Your task to perform on an android device: turn off picture-in-picture Image 0: 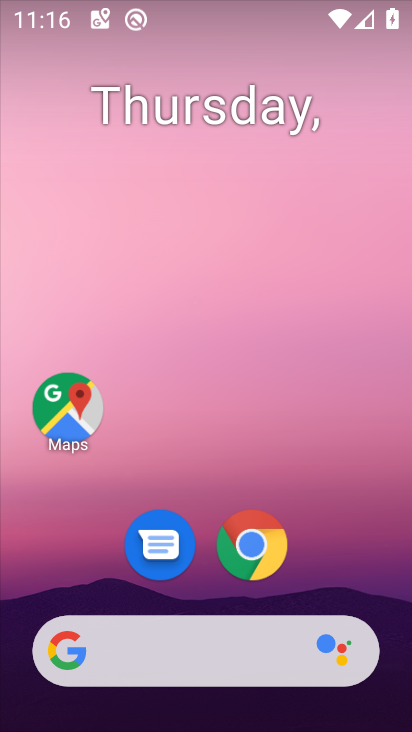
Step 0: drag from (327, 580) to (264, 211)
Your task to perform on an android device: turn off picture-in-picture Image 1: 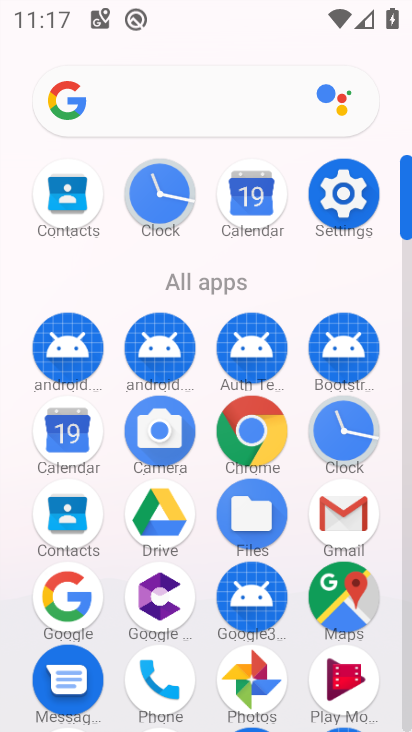
Step 1: click (346, 190)
Your task to perform on an android device: turn off picture-in-picture Image 2: 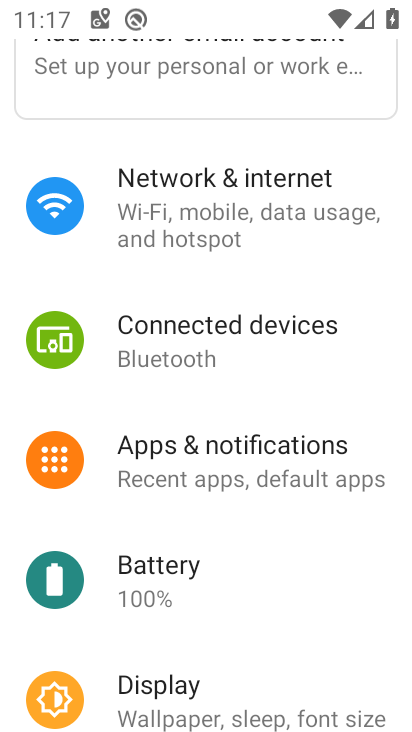
Step 2: click (199, 482)
Your task to perform on an android device: turn off picture-in-picture Image 3: 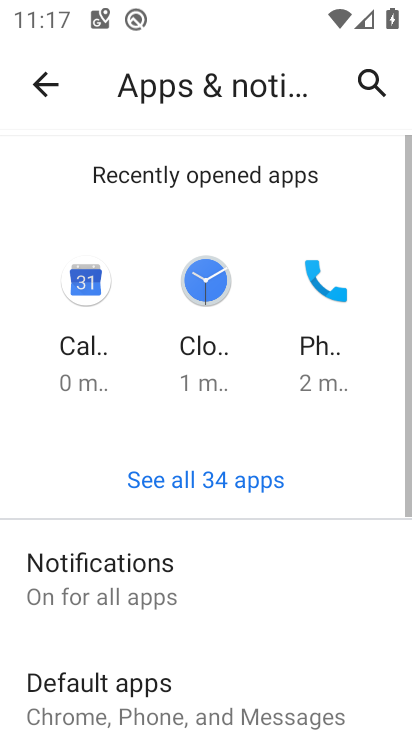
Step 3: drag from (209, 649) to (170, 339)
Your task to perform on an android device: turn off picture-in-picture Image 4: 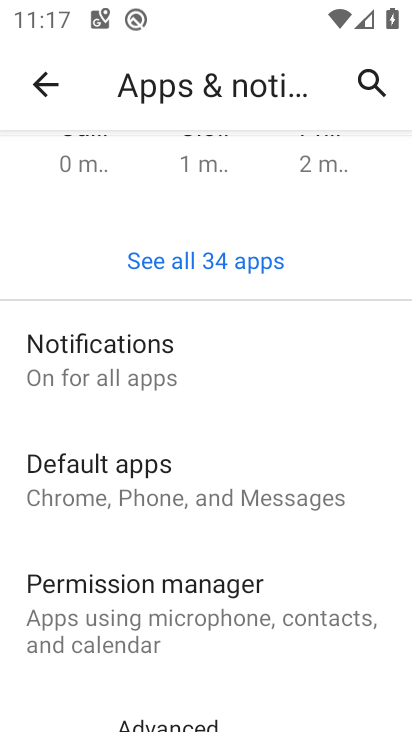
Step 4: drag from (145, 658) to (140, 423)
Your task to perform on an android device: turn off picture-in-picture Image 5: 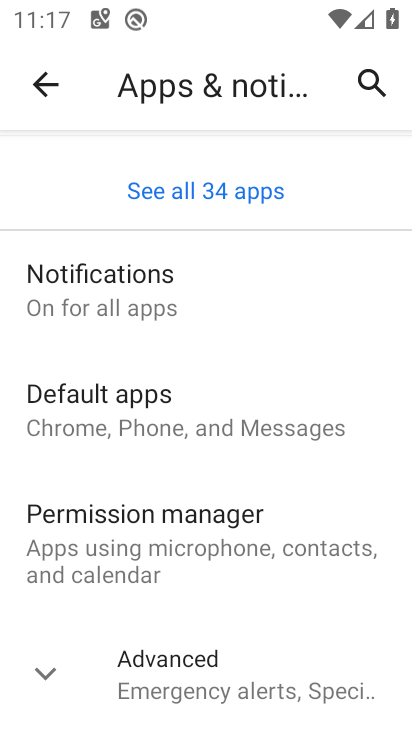
Step 5: click (190, 688)
Your task to perform on an android device: turn off picture-in-picture Image 6: 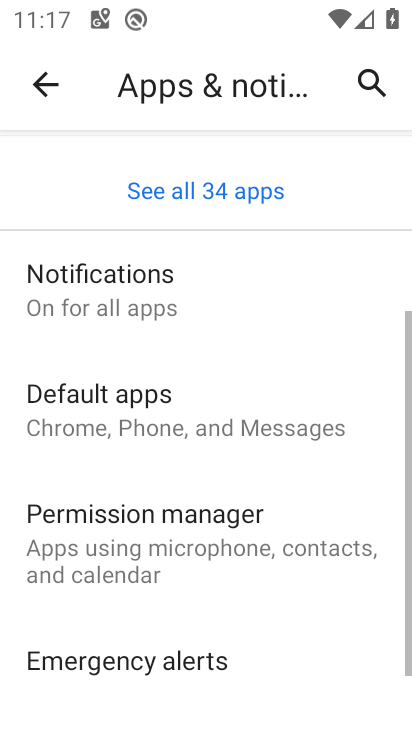
Step 6: drag from (190, 688) to (222, 330)
Your task to perform on an android device: turn off picture-in-picture Image 7: 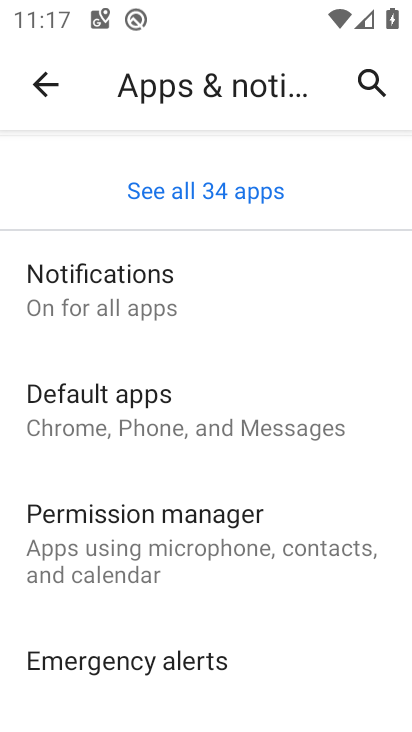
Step 7: drag from (137, 605) to (165, 321)
Your task to perform on an android device: turn off picture-in-picture Image 8: 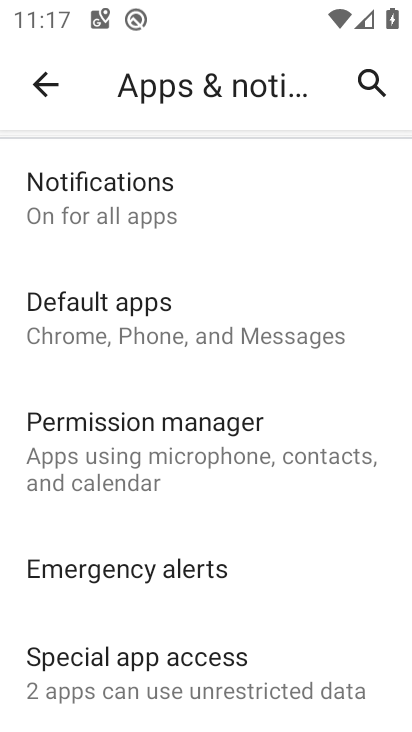
Step 8: click (131, 676)
Your task to perform on an android device: turn off picture-in-picture Image 9: 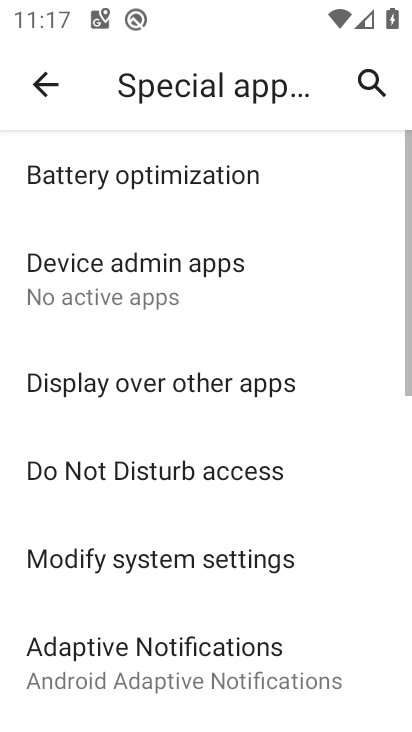
Step 9: drag from (121, 688) to (155, 396)
Your task to perform on an android device: turn off picture-in-picture Image 10: 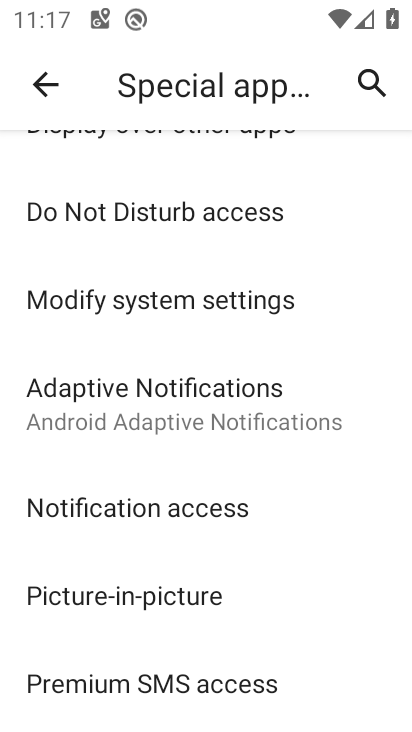
Step 10: click (148, 613)
Your task to perform on an android device: turn off picture-in-picture Image 11: 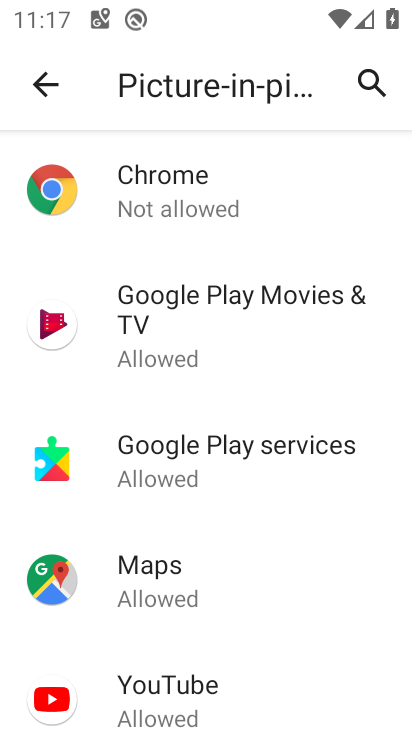
Step 11: click (152, 209)
Your task to perform on an android device: turn off picture-in-picture Image 12: 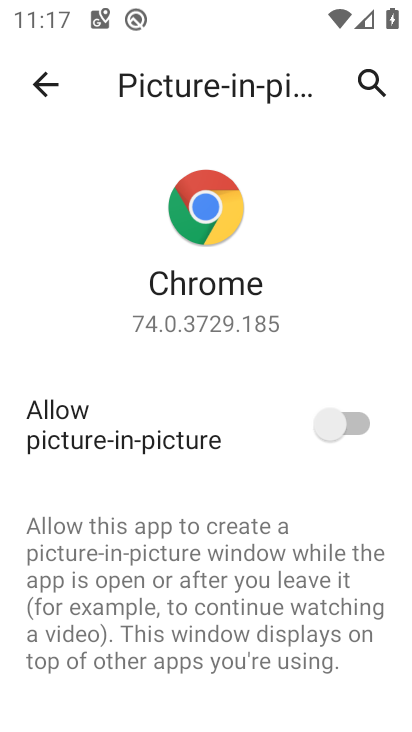
Step 12: task complete